Your task to perform on an android device: read, delete, or share a saved page in the chrome app Image 0: 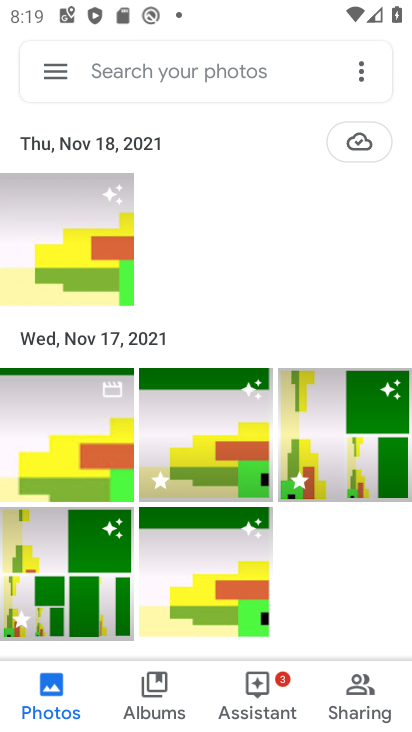
Step 0: press home button
Your task to perform on an android device: read, delete, or share a saved page in the chrome app Image 1: 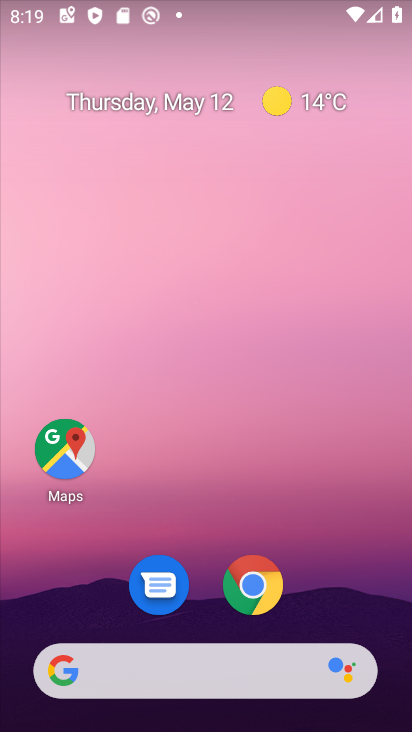
Step 1: click (267, 575)
Your task to perform on an android device: read, delete, or share a saved page in the chrome app Image 2: 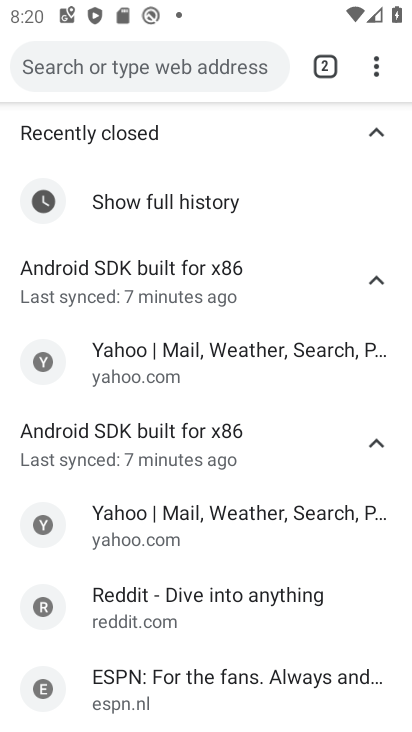
Step 2: click (373, 69)
Your task to perform on an android device: read, delete, or share a saved page in the chrome app Image 3: 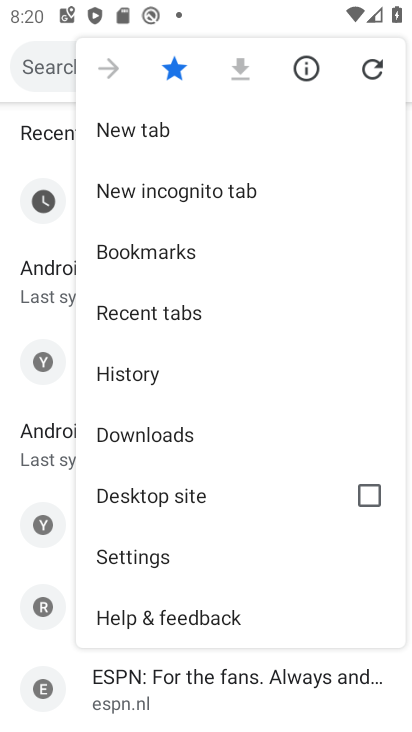
Step 3: click (171, 433)
Your task to perform on an android device: read, delete, or share a saved page in the chrome app Image 4: 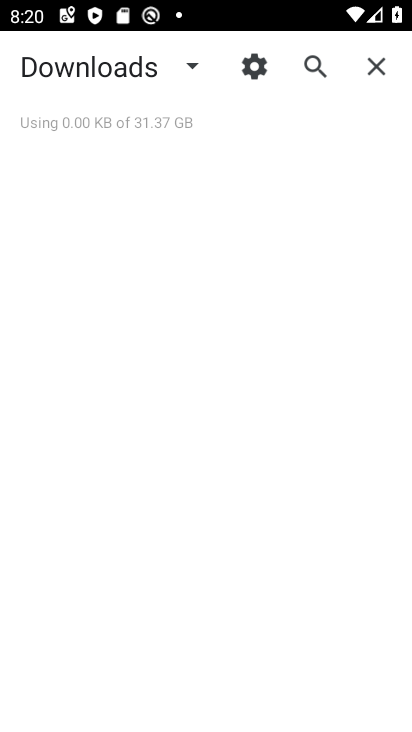
Step 4: task complete